Your task to perform on an android device: change text size in settings app Image 0: 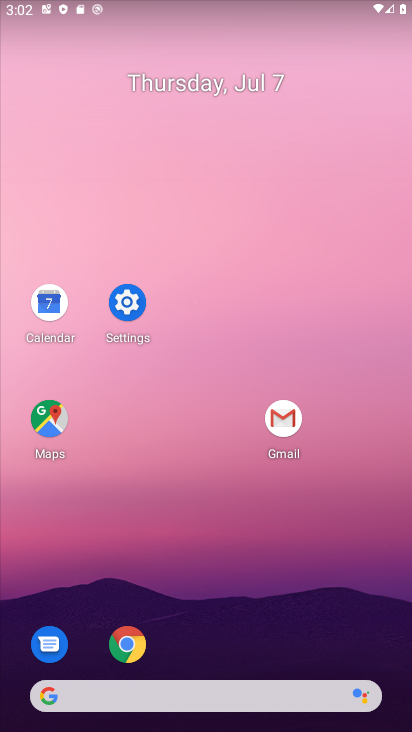
Step 0: click (138, 310)
Your task to perform on an android device: change text size in settings app Image 1: 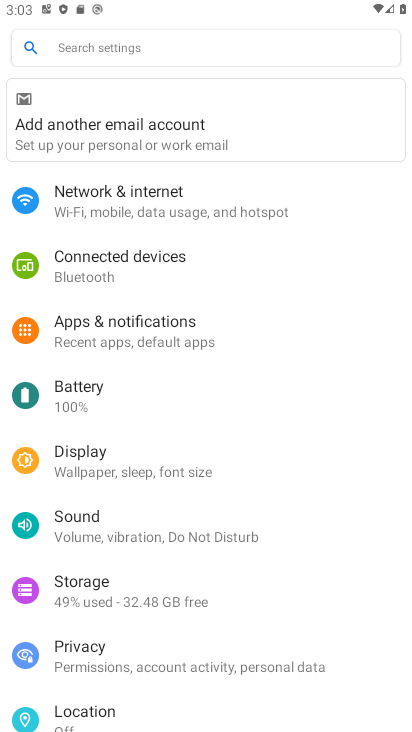
Step 1: click (81, 456)
Your task to perform on an android device: change text size in settings app Image 2: 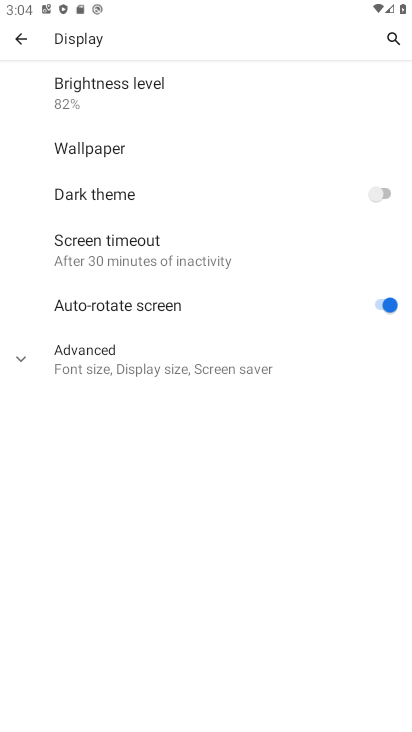
Step 2: click (43, 365)
Your task to perform on an android device: change text size in settings app Image 3: 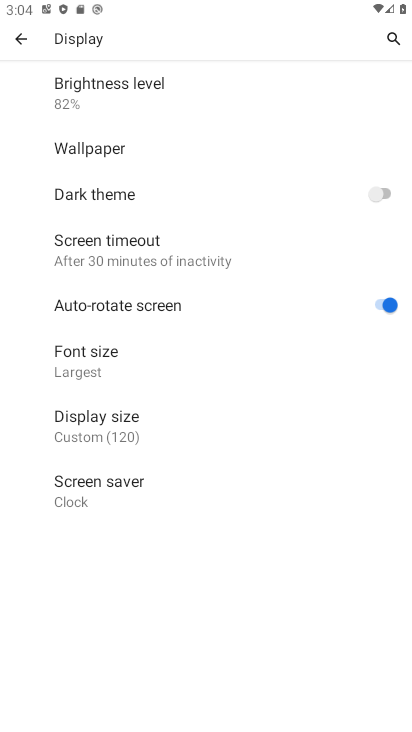
Step 3: click (99, 367)
Your task to perform on an android device: change text size in settings app Image 4: 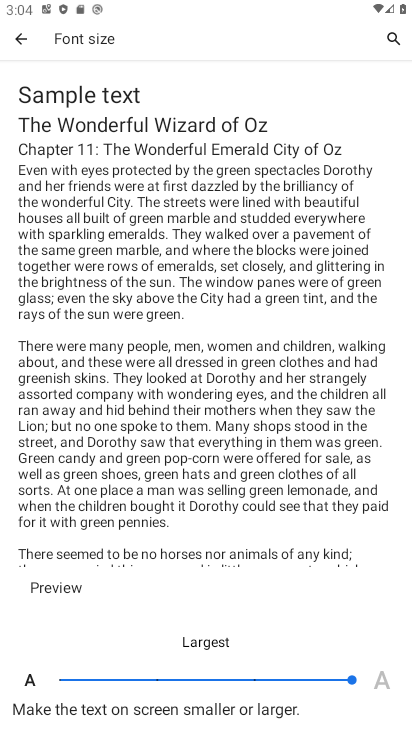
Step 4: click (333, 679)
Your task to perform on an android device: change text size in settings app Image 5: 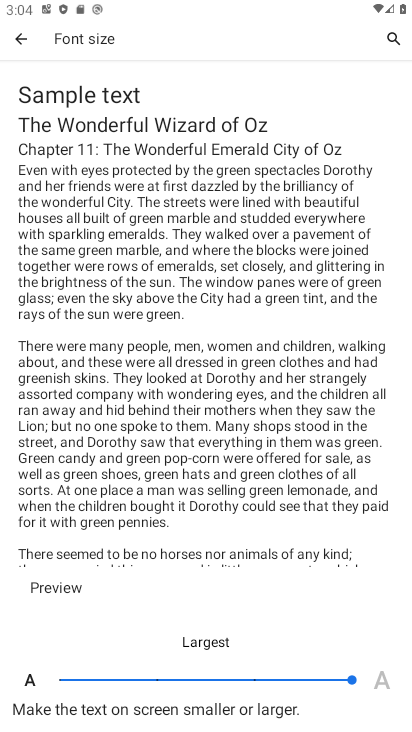
Step 5: click (341, 679)
Your task to perform on an android device: change text size in settings app Image 6: 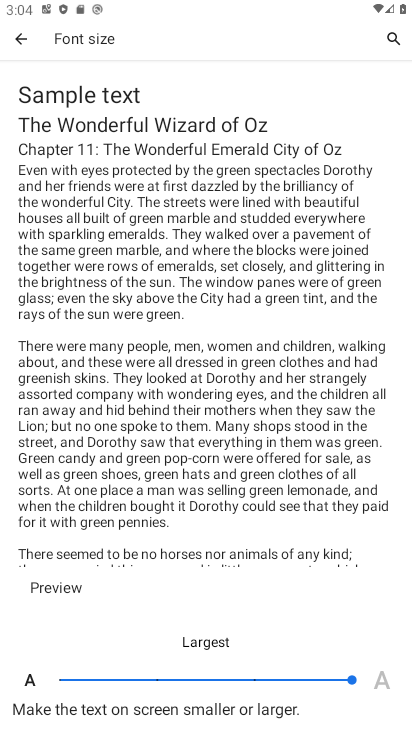
Step 6: click (350, 680)
Your task to perform on an android device: change text size in settings app Image 7: 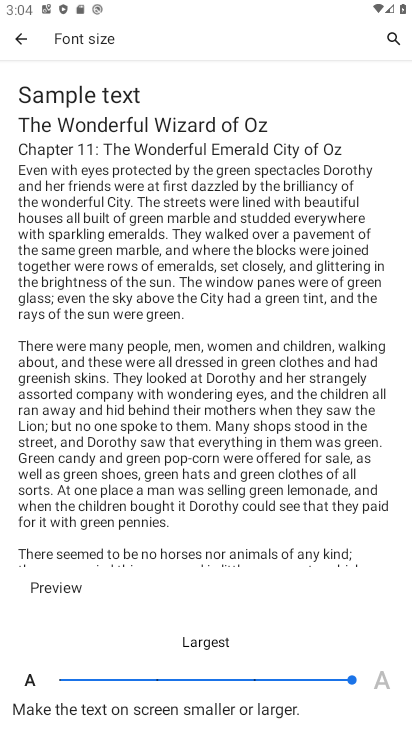
Step 7: click (305, 678)
Your task to perform on an android device: change text size in settings app Image 8: 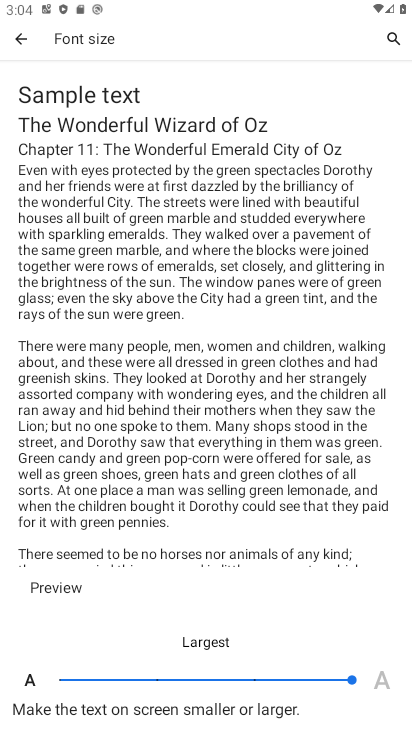
Step 8: click (274, 677)
Your task to perform on an android device: change text size in settings app Image 9: 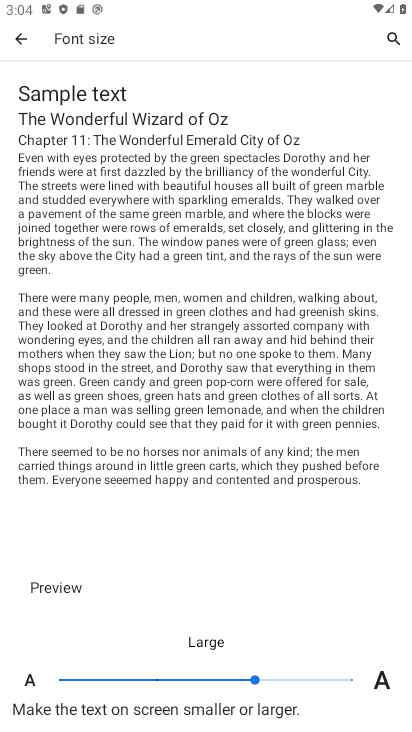
Step 9: click (236, 677)
Your task to perform on an android device: change text size in settings app Image 10: 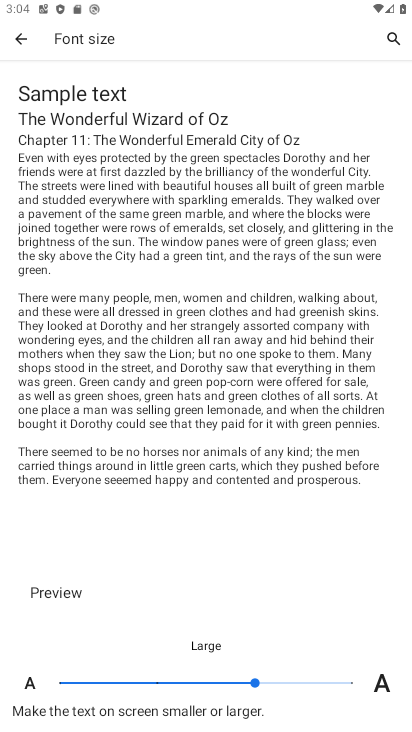
Step 10: click (283, 678)
Your task to perform on an android device: change text size in settings app Image 11: 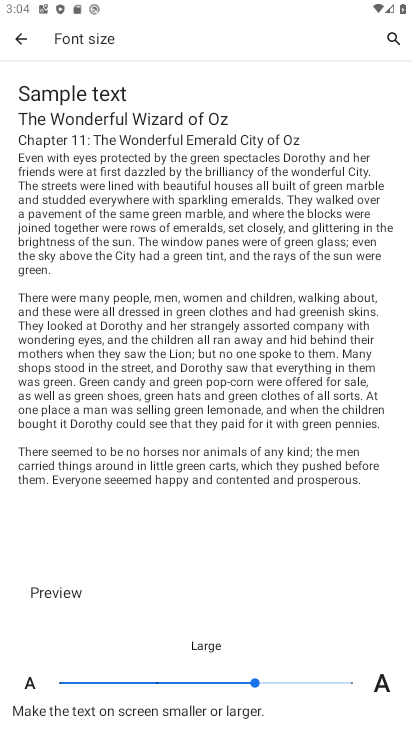
Step 11: click (286, 680)
Your task to perform on an android device: change text size in settings app Image 12: 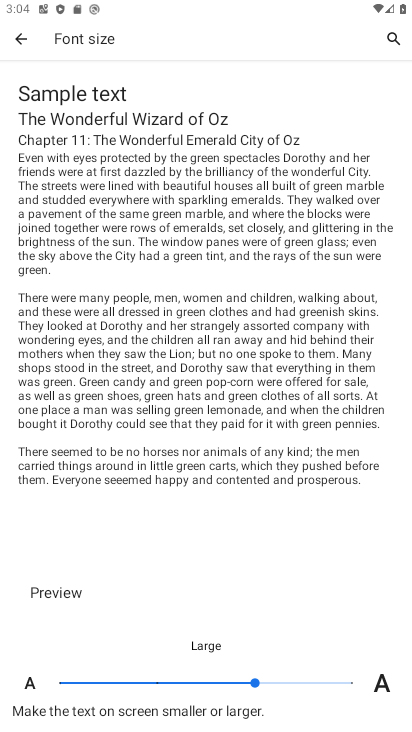
Step 12: drag from (257, 681) to (340, 689)
Your task to perform on an android device: change text size in settings app Image 13: 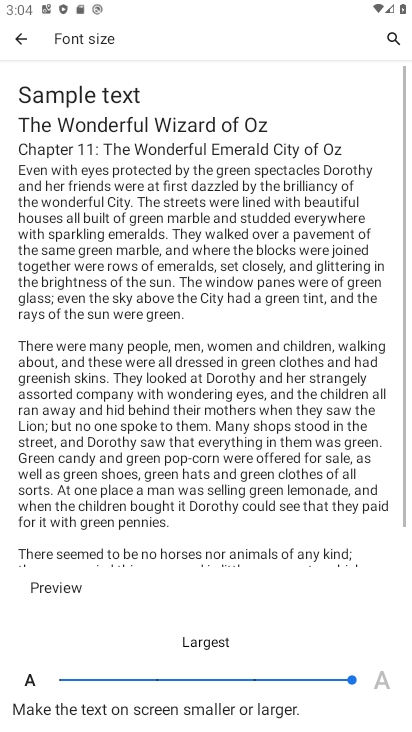
Step 13: click (337, 681)
Your task to perform on an android device: change text size in settings app Image 14: 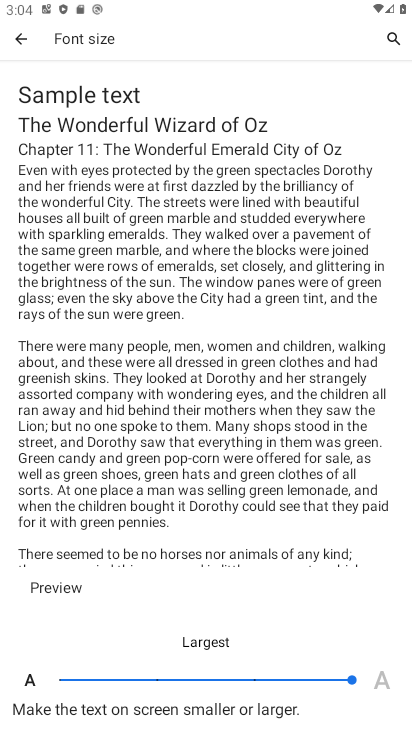
Step 14: task complete